Your task to perform on an android device: open app "Instagram" Image 0: 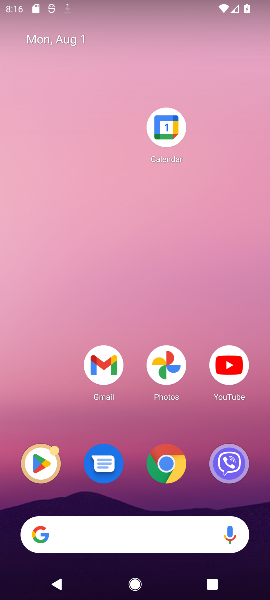
Step 0: click (44, 457)
Your task to perform on an android device: open app "Instagram" Image 1: 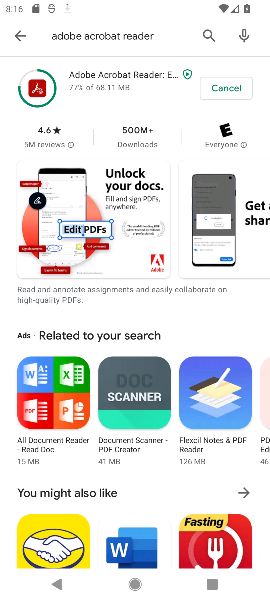
Step 1: click (210, 38)
Your task to perform on an android device: open app "Instagram" Image 2: 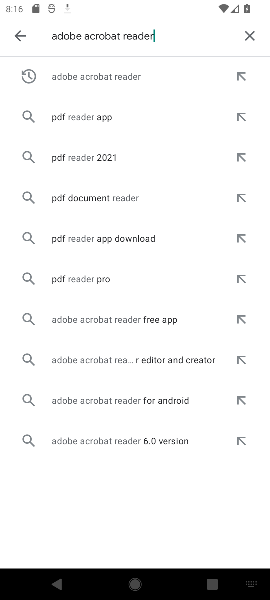
Step 2: click (245, 40)
Your task to perform on an android device: open app "Instagram" Image 3: 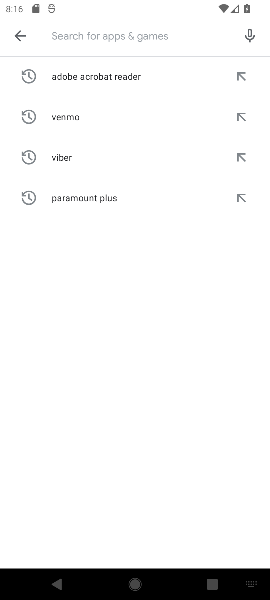
Step 3: type "instagram"
Your task to perform on an android device: open app "Instagram" Image 4: 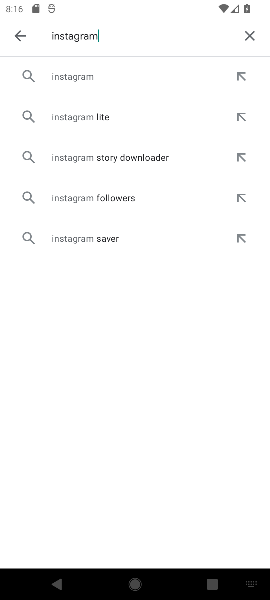
Step 4: click (163, 78)
Your task to perform on an android device: open app "Instagram" Image 5: 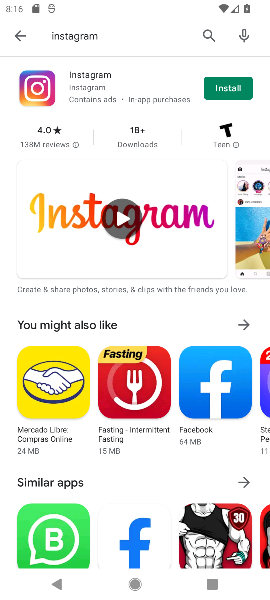
Step 5: click (215, 90)
Your task to perform on an android device: open app "Instagram" Image 6: 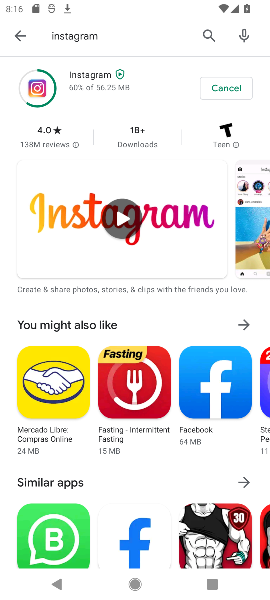
Step 6: task complete